Your task to perform on an android device: change timer sound Image 0: 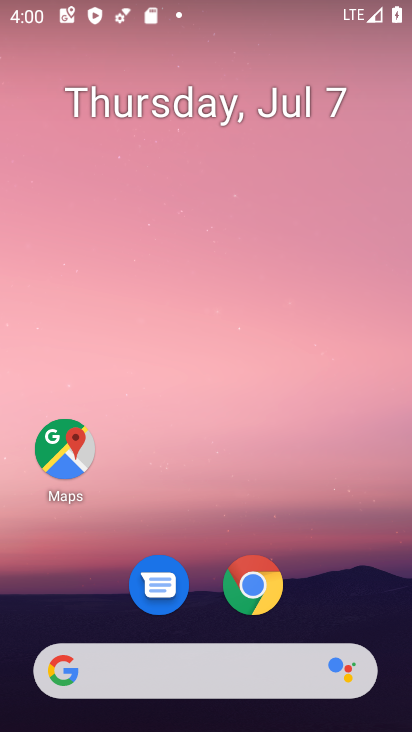
Step 0: drag from (317, 547) to (281, 8)
Your task to perform on an android device: change timer sound Image 1: 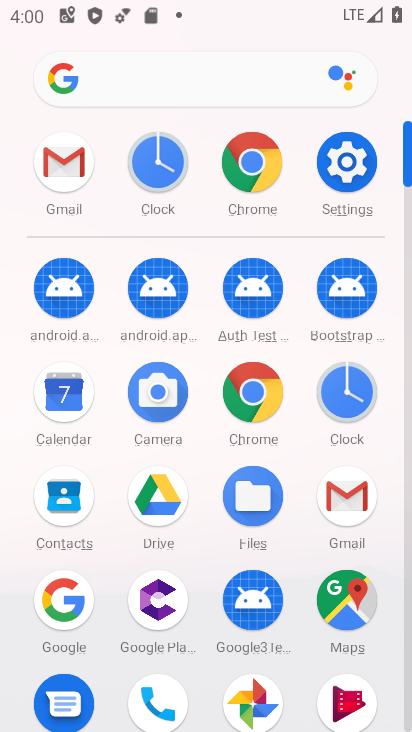
Step 1: click (70, 183)
Your task to perform on an android device: change timer sound Image 2: 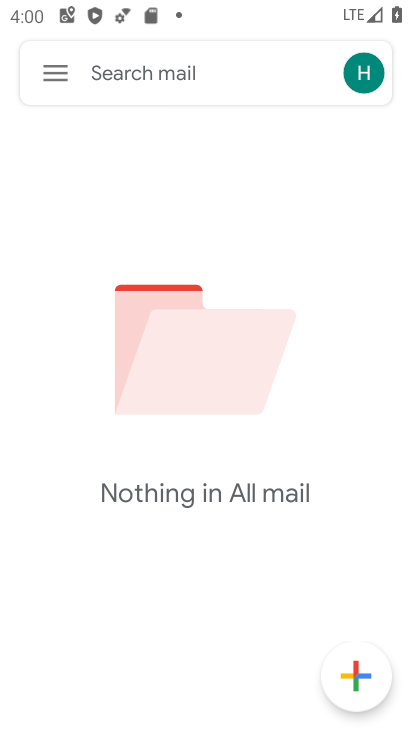
Step 2: press home button
Your task to perform on an android device: change timer sound Image 3: 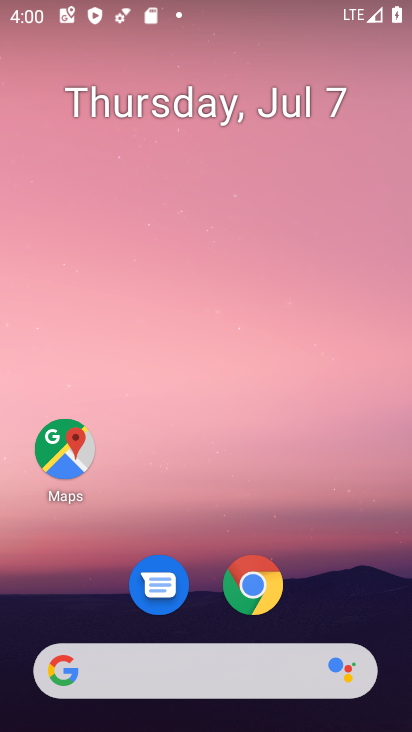
Step 3: drag from (345, 561) to (345, 15)
Your task to perform on an android device: change timer sound Image 4: 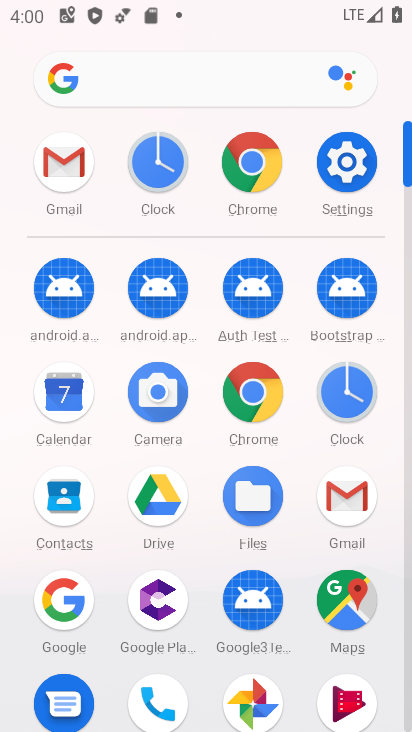
Step 4: click (345, 386)
Your task to perform on an android device: change timer sound Image 5: 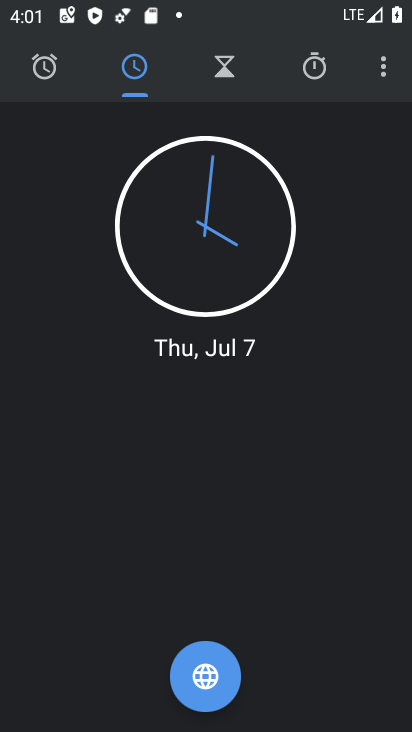
Step 5: click (388, 77)
Your task to perform on an android device: change timer sound Image 6: 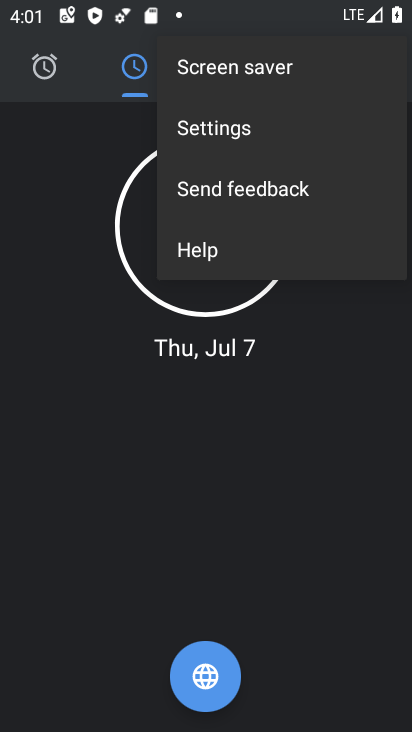
Step 6: click (272, 133)
Your task to perform on an android device: change timer sound Image 7: 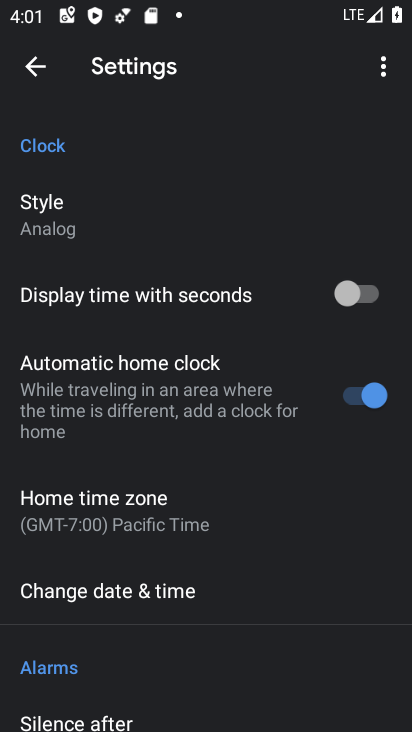
Step 7: drag from (264, 496) to (265, 45)
Your task to perform on an android device: change timer sound Image 8: 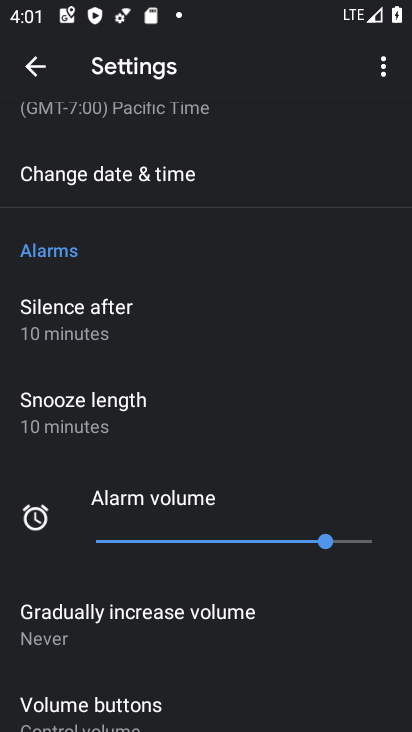
Step 8: drag from (154, 519) to (163, 204)
Your task to perform on an android device: change timer sound Image 9: 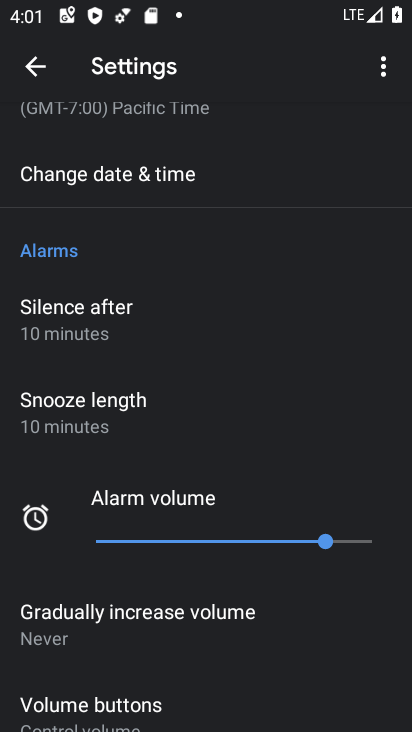
Step 9: drag from (214, 459) to (223, 167)
Your task to perform on an android device: change timer sound Image 10: 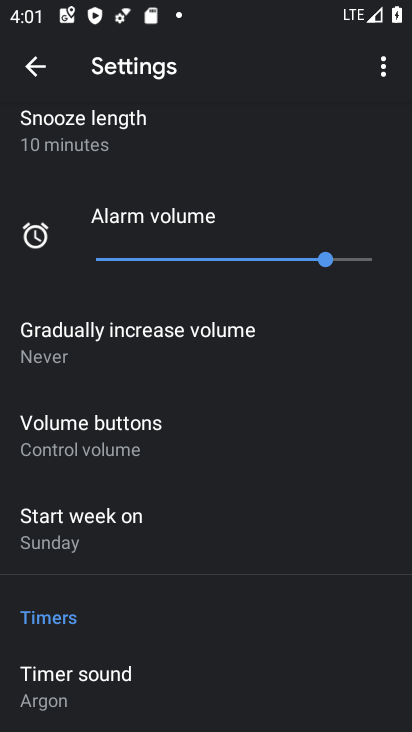
Step 10: click (115, 670)
Your task to perform on an android device: change timer sound Image 11: 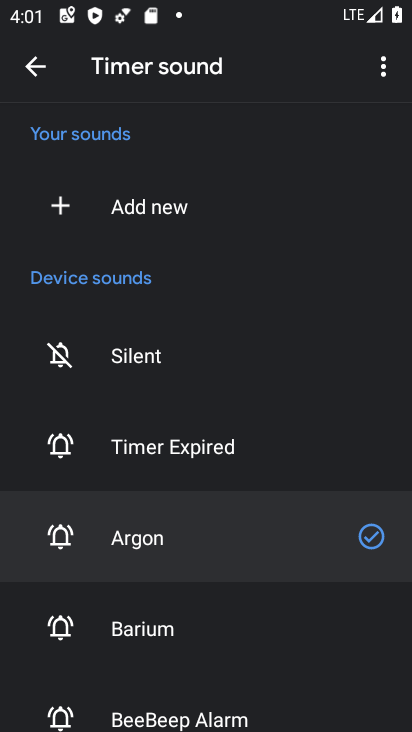
Step 11: click (153, 628)
Your task to perform on an android device: change timer sound Image 12: 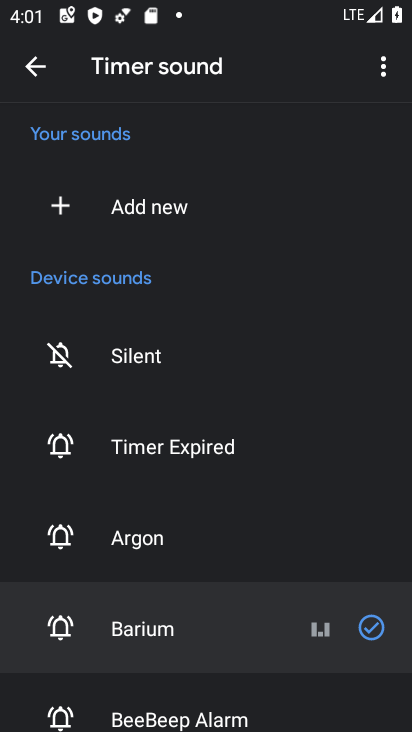
Step 12: task complete